Your task to perform on an android device: Go to privacy settings Image 0: 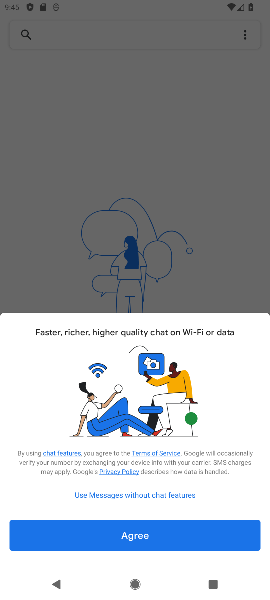
Step 0: press home button
Your task to perform on an android device: Go to privacy settings Image 1: 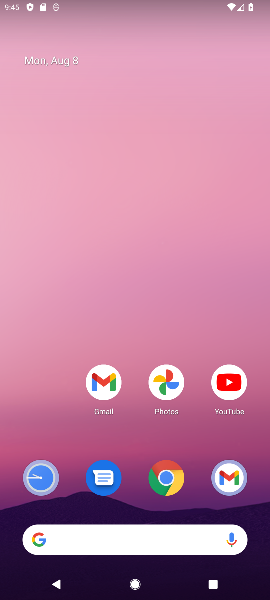
Step 1: drag from (116, 521) to (176, 14)
Your task to perform on an android device: Go to privacy settings Image 2: 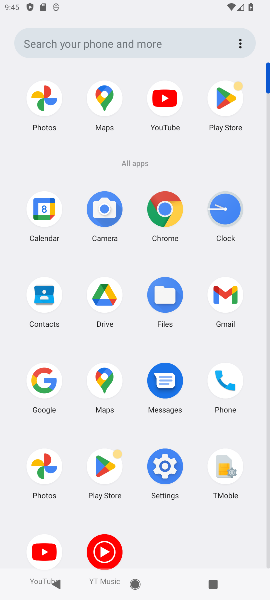
Step 2: click (171, 472)
Your task to perform on an android device: Go to privacy settings Image 3: 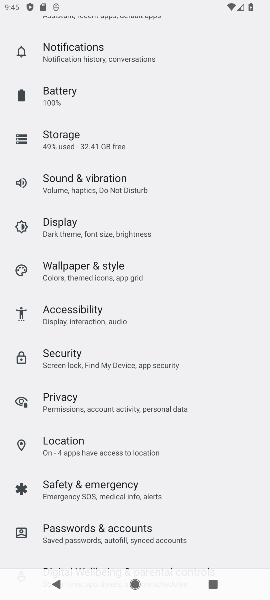
Step 3: click (38, 402)
Your task to perform on an android device: Go to privacy settings Image 4: 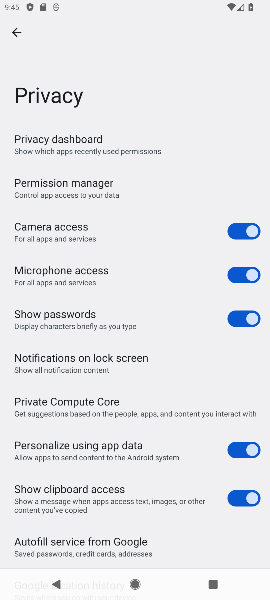
Step 4: click (43, 392)
Your task to perform on an android device: Go to privacy settings Image 5: 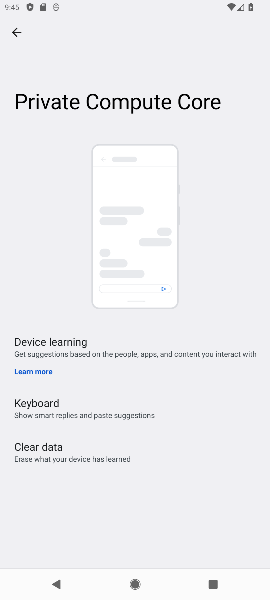
Step 5: task complete